Your task to perform on an android device: Search for Mexican restaurants on Maps Image 0: 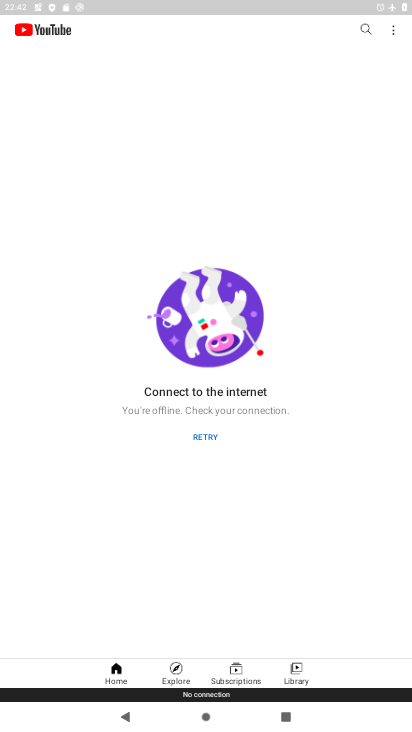
Step 0: press home button
Your task to perform on an android device: Search for Mexican restaurants on Maps Image 1: 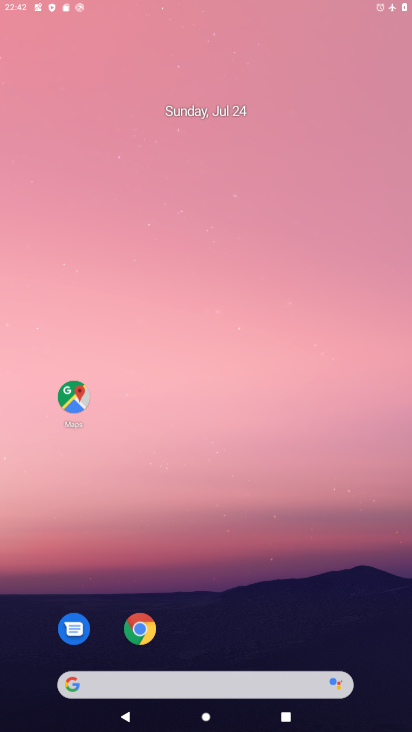
Step 1: drag from (170, 633) to (223, 256)
Your task to perform on an android device: Search for Mexican restaurants on Maps Image 2: 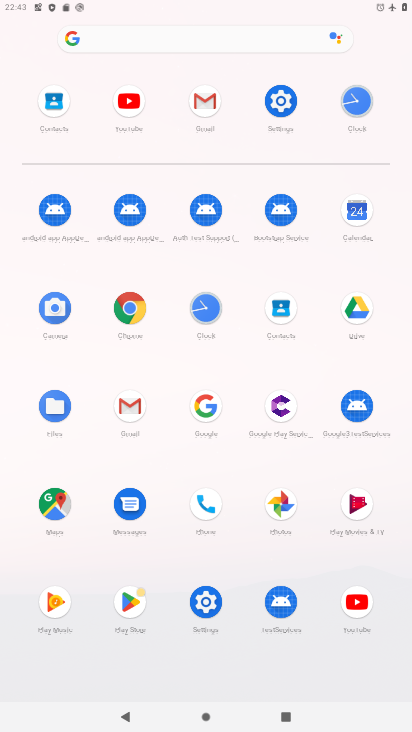
Step 2: click (44, 491)
Your task to perform on an android device: Search for Mexican restaurants on Maps Image 3: 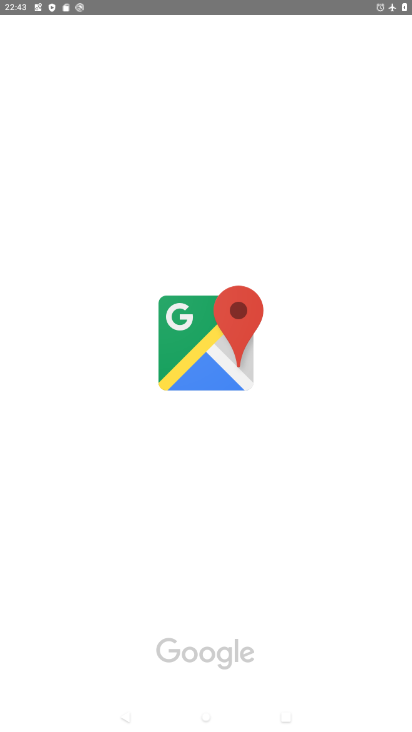
Step 3: click (272, 471)
Your task to perform on an android device: Search for Mexican restaurants on Maps Image 4: 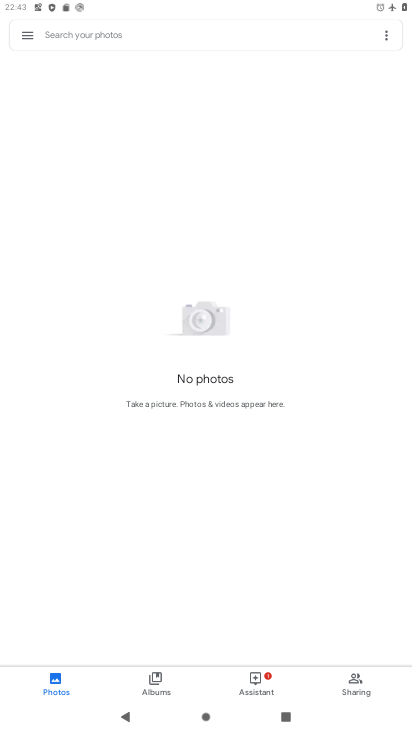
Step 4: drag from (216, 567) to (207, 348)
Your task to perform on an android device: Search for Mexican restaurants on Maps Image 5: 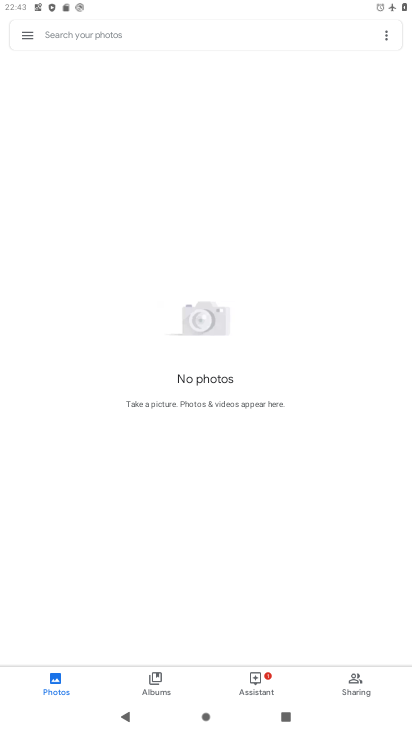
Step 5: press home button
Your task to perform on an android device: Search for Mexican restaurants on Maps Image 6: 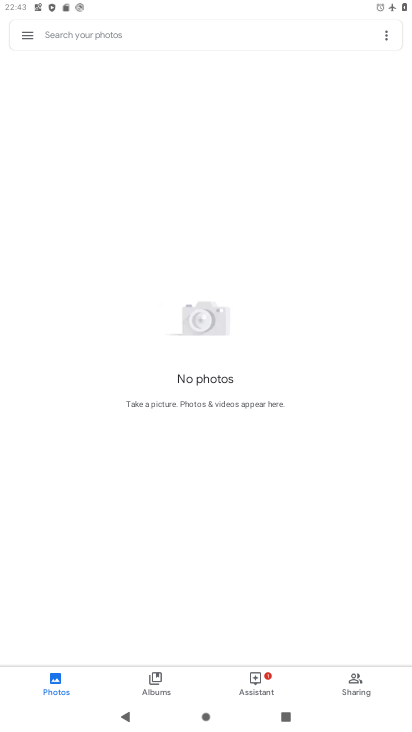
Step 6: press home button
Your task to perform on an android device: Search for Mexican restaurants on Maps Image 7: 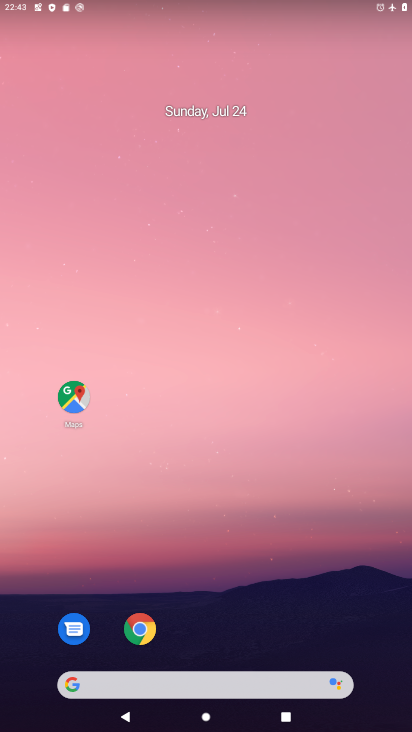
Step 7: drag from (238, 629) to (405, 221)
Your task to perform on an android device: Search for Mexican restaurants on Maps Image 8: 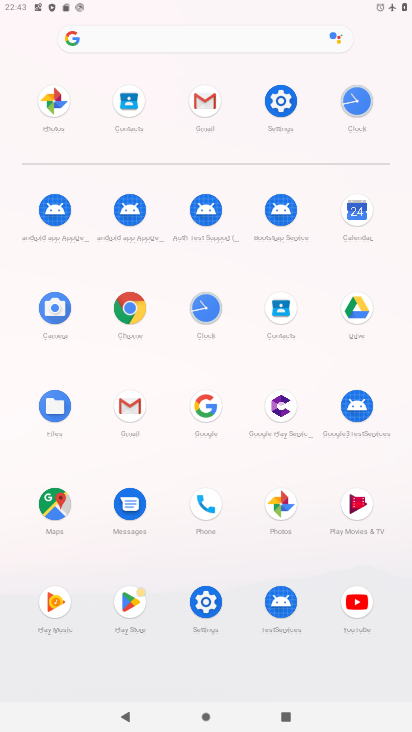
Step 8: click (54, 511)
Your task to perform on an android device: Search for Mexican restaurants on Maps Image 9: 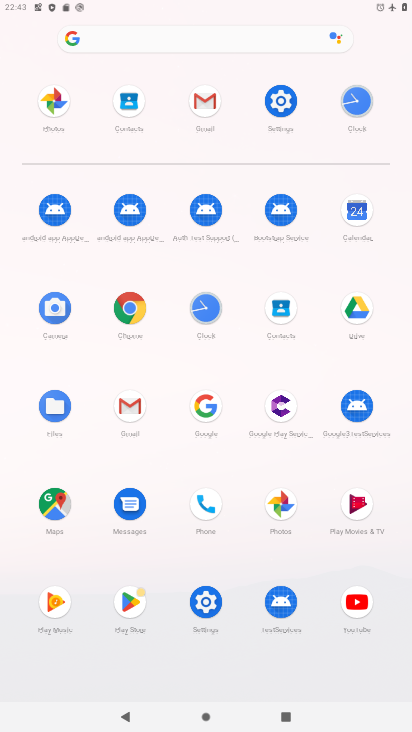
Step 9: click (53, 511)
Your task to perform on an android device: Search for Mexican restaurants on Maps Image 10: 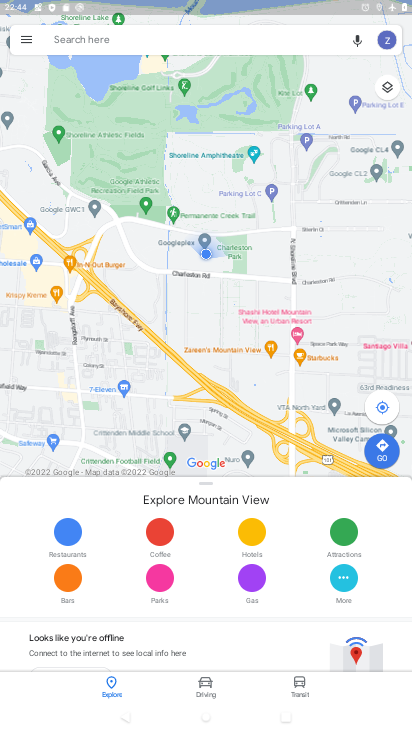
Step 10: click (95, 43)
Your task to perform on an android device: Search for Mexican restaurants on Maps Image 11: 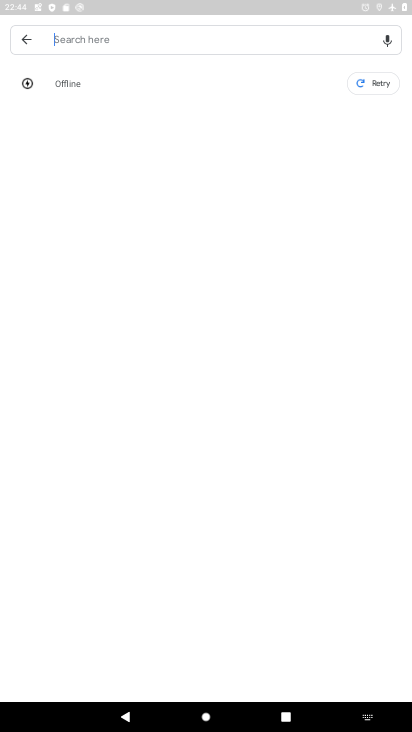
Step 11: drag from (193, 505) to (202, 130)
Your task to perform on an android device: Search for Mexican restaurants on Maps Image 12: 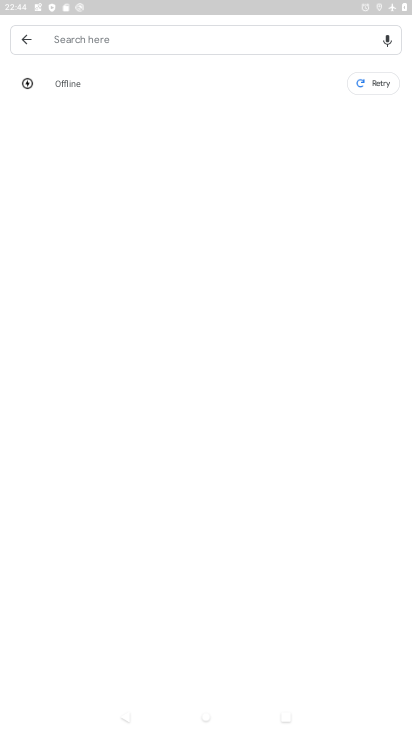
Step 12: click (81, 36)
Your task to perform on an android device: Search for Mexican restaurants on Maps Image 13: 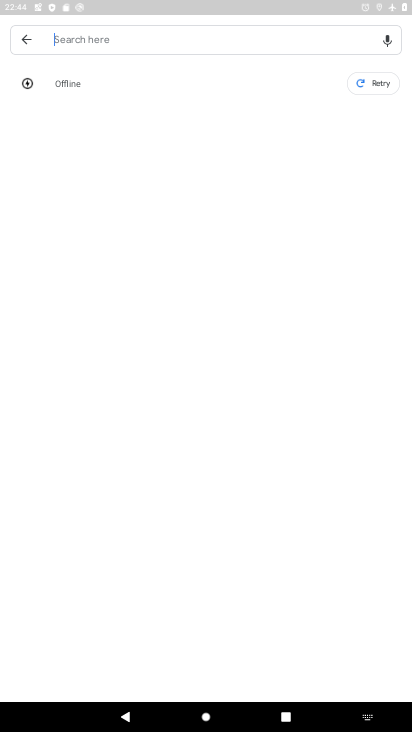
Step 13: click (19, 43)
Your task to perform on an android device: Search for Mexican restaurants on Maps Image 14: 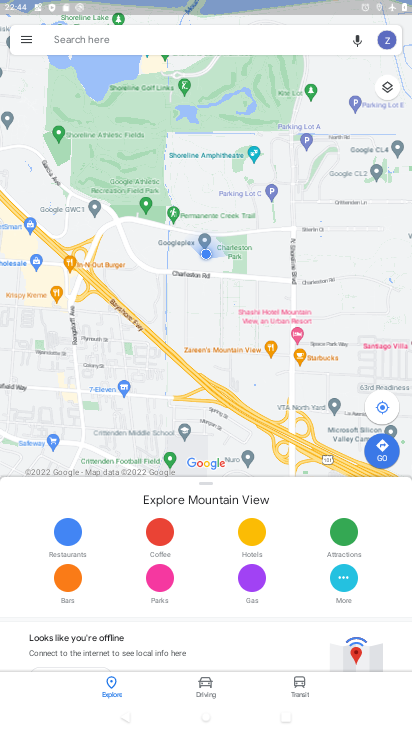
Step 14: drag from (50, 132) to (77, 15)
Your task to perform on an android device: Search for Mexican restaurants on Maps Image 15: 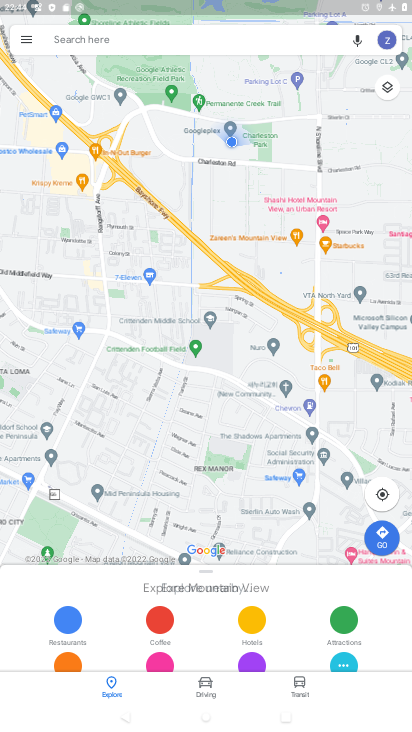
Step 15: click (80, 24)
Your task to perform on an android device: Search for Mexican restaurants on Maps Image 16: 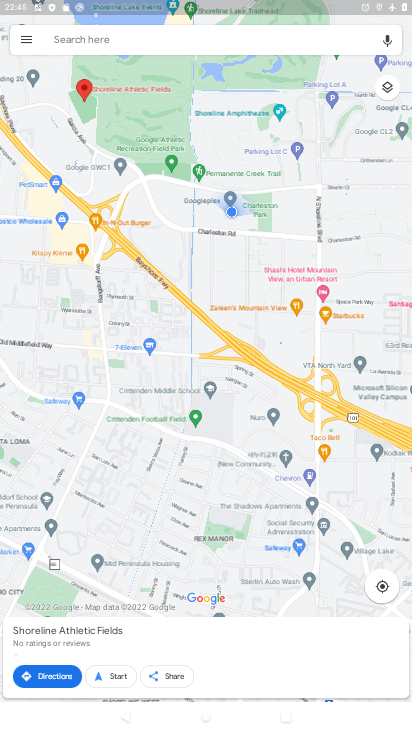
Step 16: drag from (209, 458) to (172, 128)
Your task to perform on an android device: Search for Mexican restaurants on Maps Image 17: 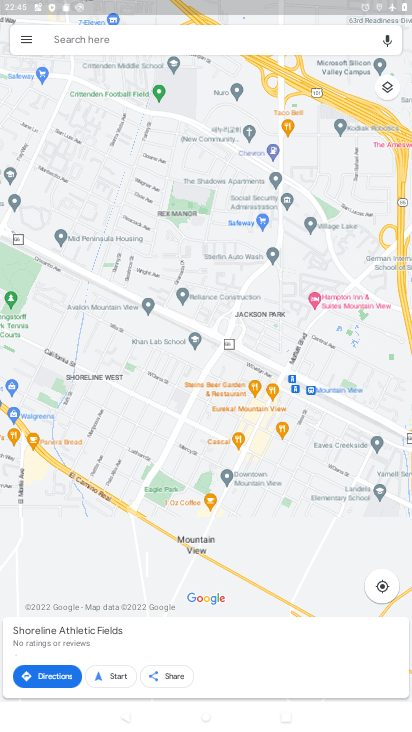
Step 17: click (102, 47)
Your task to perform on an android device: Search for Mexican restaurants on Maps Image 18: 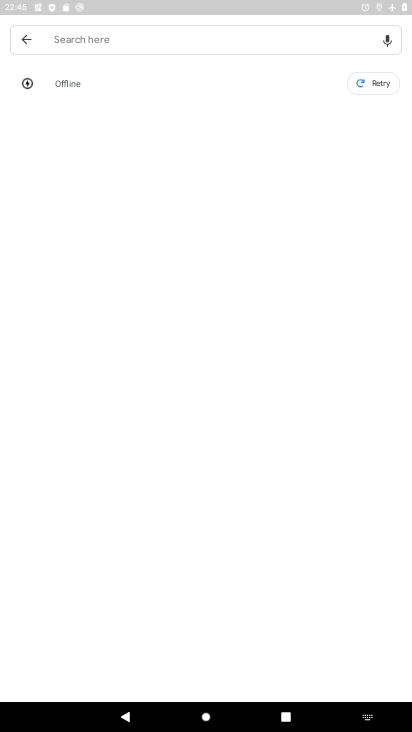
Step 18: task complete